Your task to perform on an android device: find photos in the google photos app Image 0: 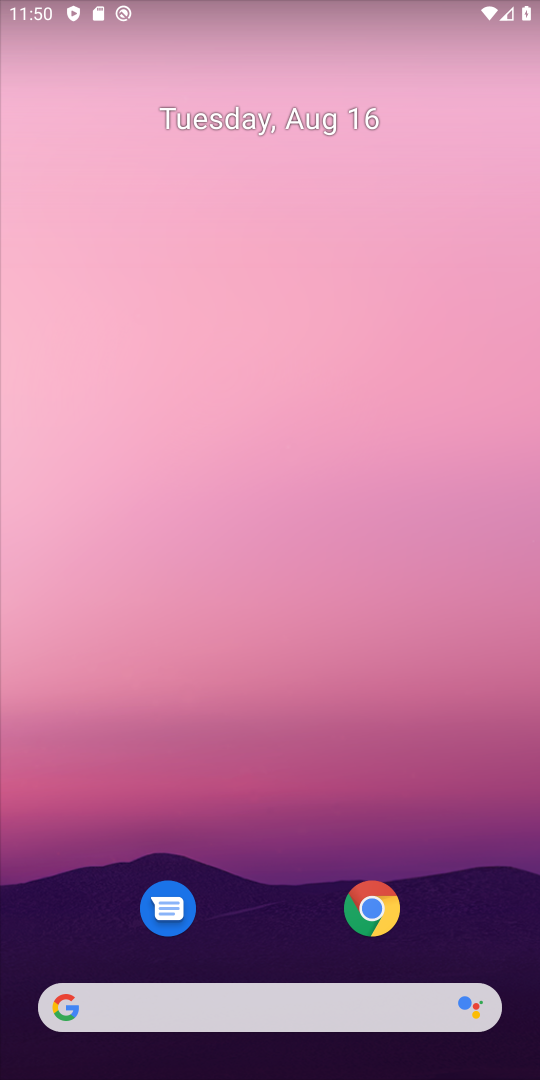
Step 0: drag from (286, 772) to (321, 345)
Your task to perform on an android device: find photos in the google photos app Image 1: 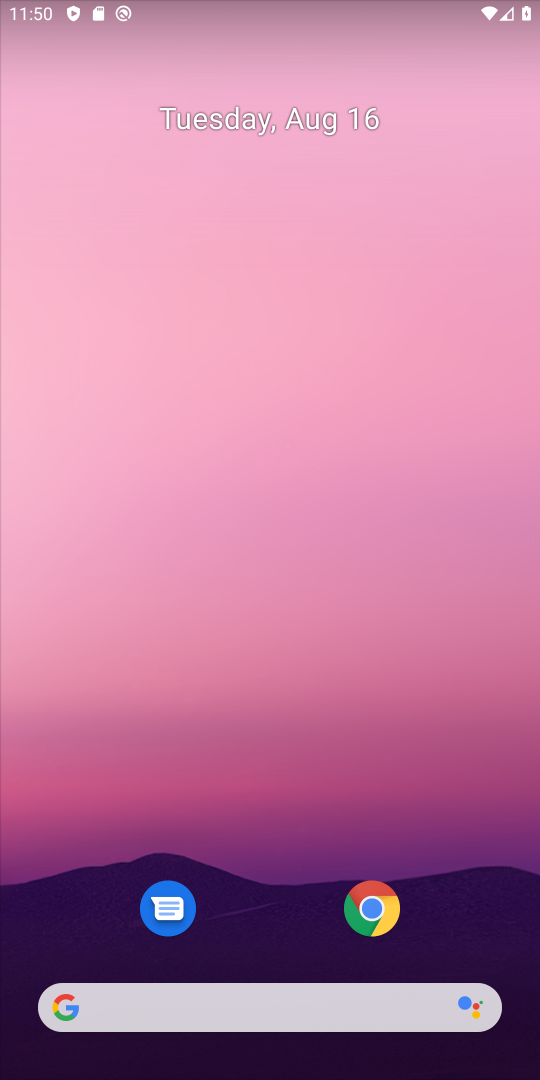
Step 1: click (275, 271)
Your task to perform on an android device: find photos in the google photos app Image 2: 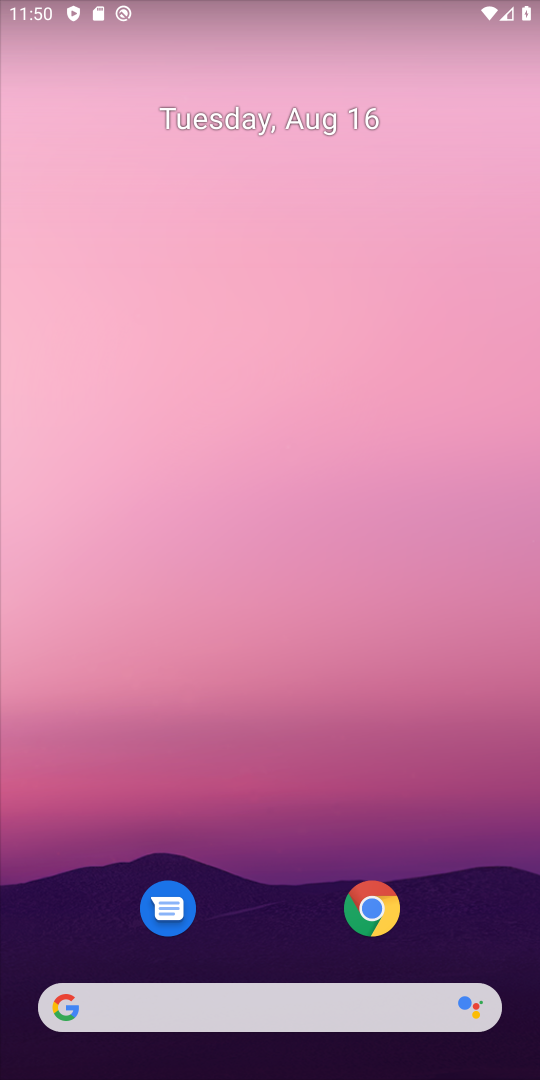
Step 2: drag from (256, 917) to (332, 244)
Your task to perform on an android device: find photos in the google photos app Image 3: 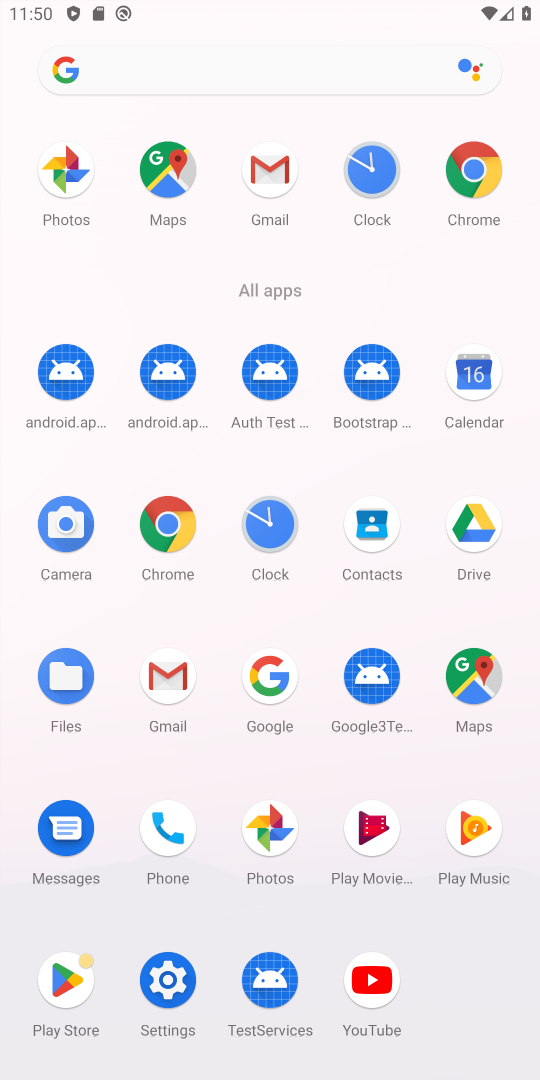
Step 3: click (71, 163)
Your task to perform on an android device: find photos in the google photos app Image 4: 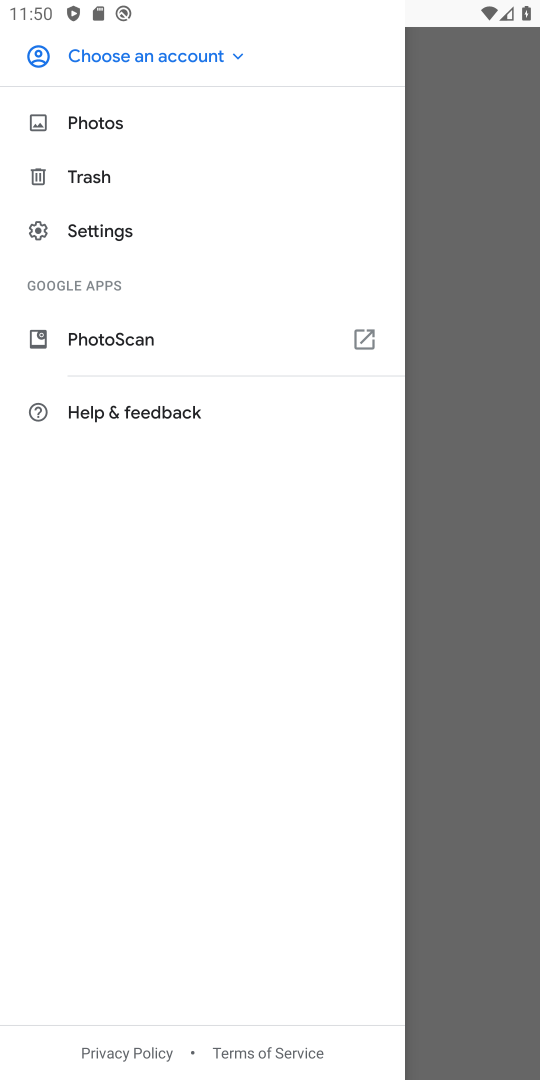
Step 4: click (145, 129)
Your task to perform on an android device: find photos in the google photos app Image 5: 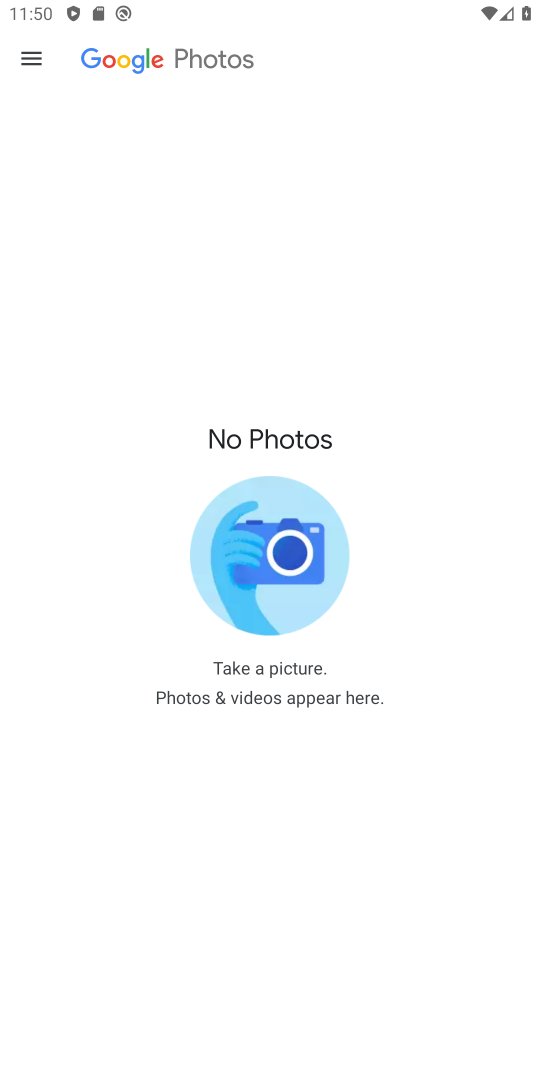
Step 5: click (35, 61)
Your task to perform on an android device: find photos in the google photos app Image 6: 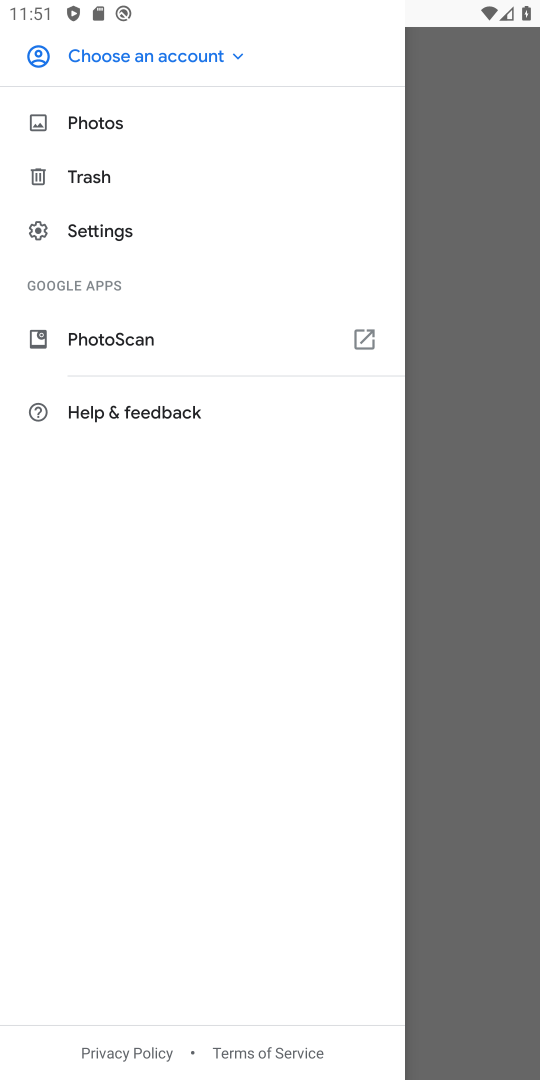
Step 6: click (472, 731)
Your task to perform on an android device: find photos in the google photos app Image 7: 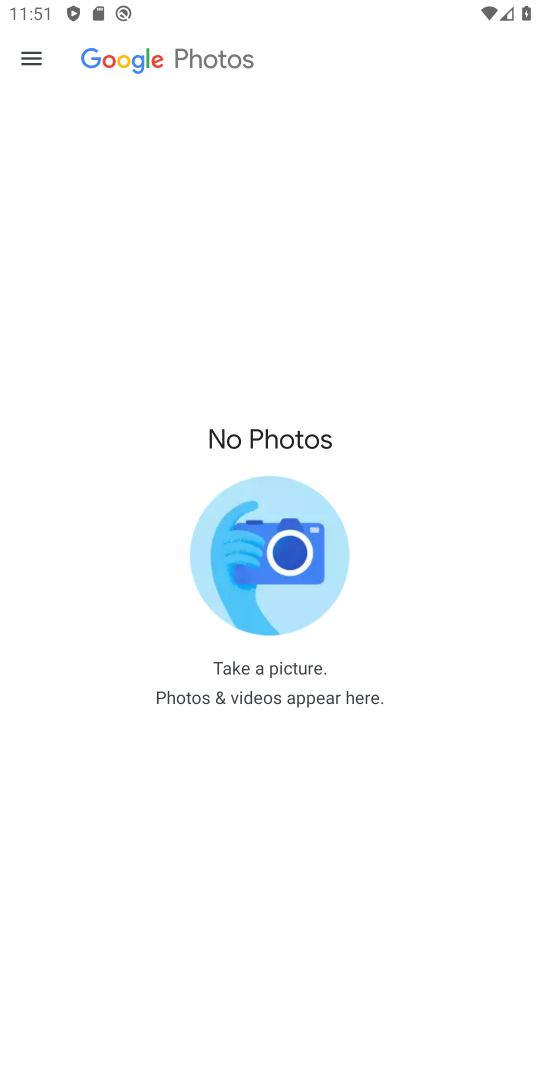
Step 7: click (190, 311)
Your task to perform on an android device: find photos in the google photos app Image 8: 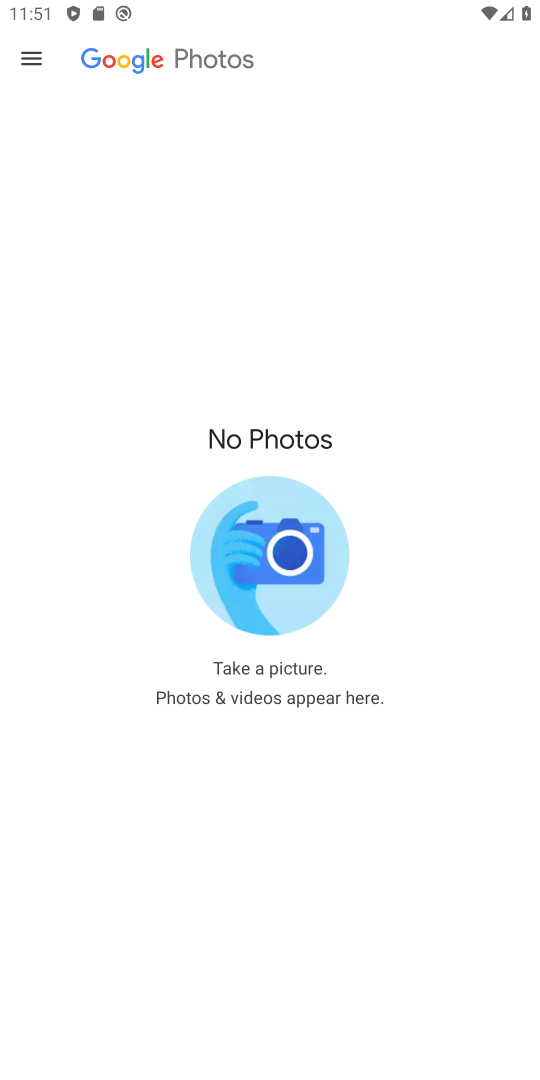
Step 8: click (40, 63)
Your task to perform on an android device: find photos in the google photos app Image 9: 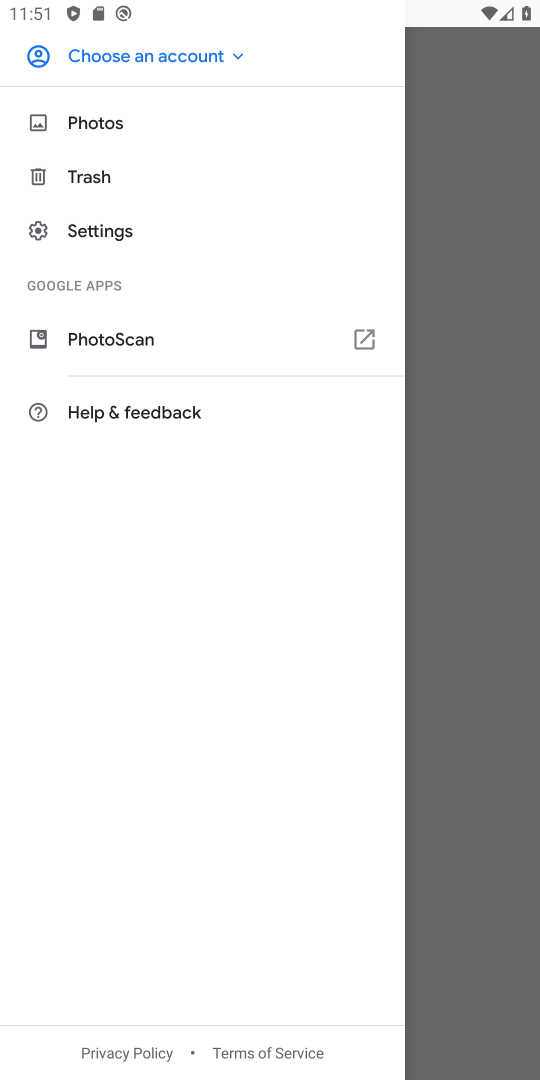
Step 9: click (431, 393)
Your task to perform on an android device: find photos in the google photos app Image 10: 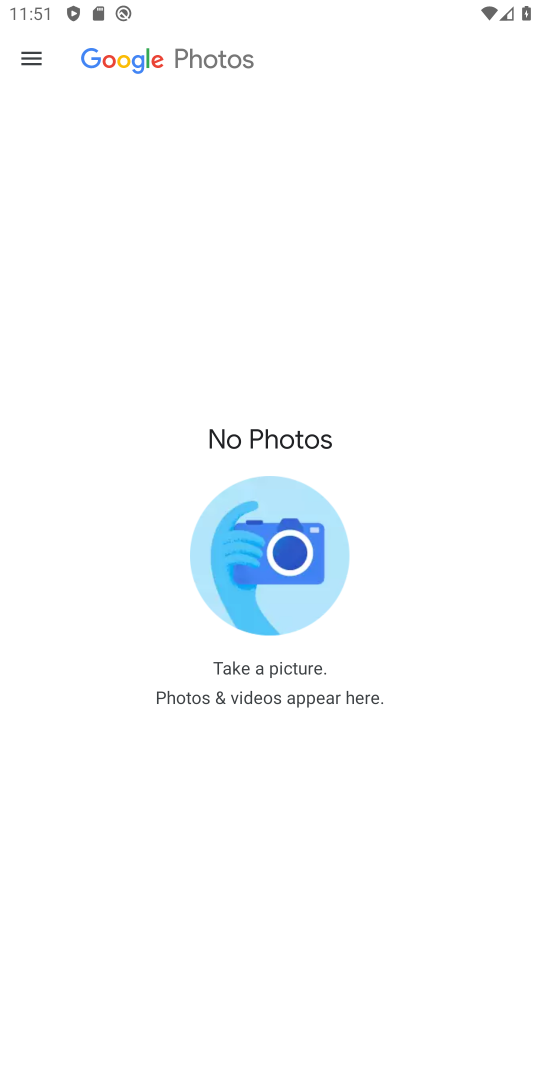
Step 10: click (353, 62)
Your task to perform on an android device: find photos in the google photos app Image 11: 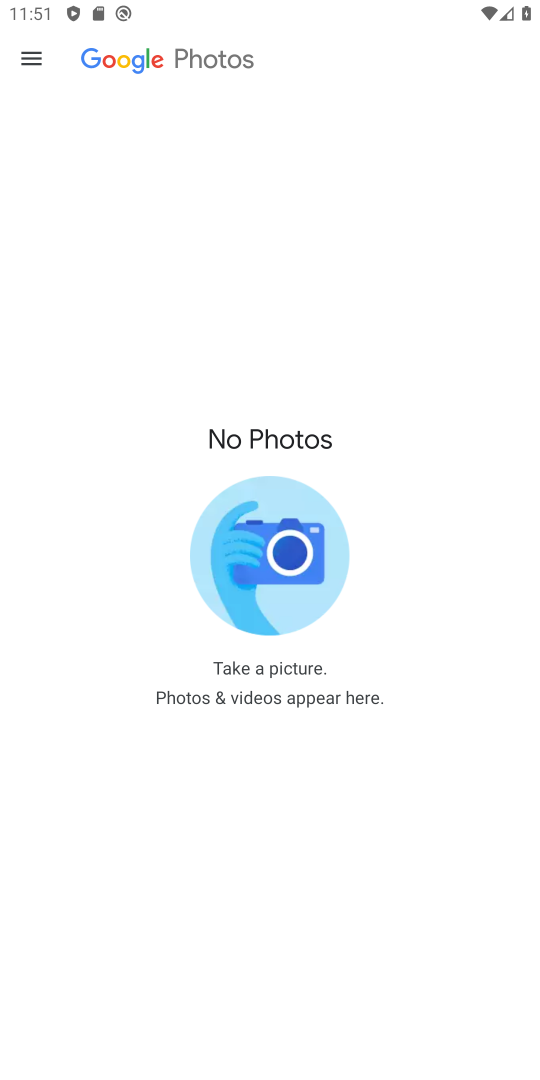
Step 11: click (241, 399)
Your task to perform on an android device: find photos in the google photos app Image 12: 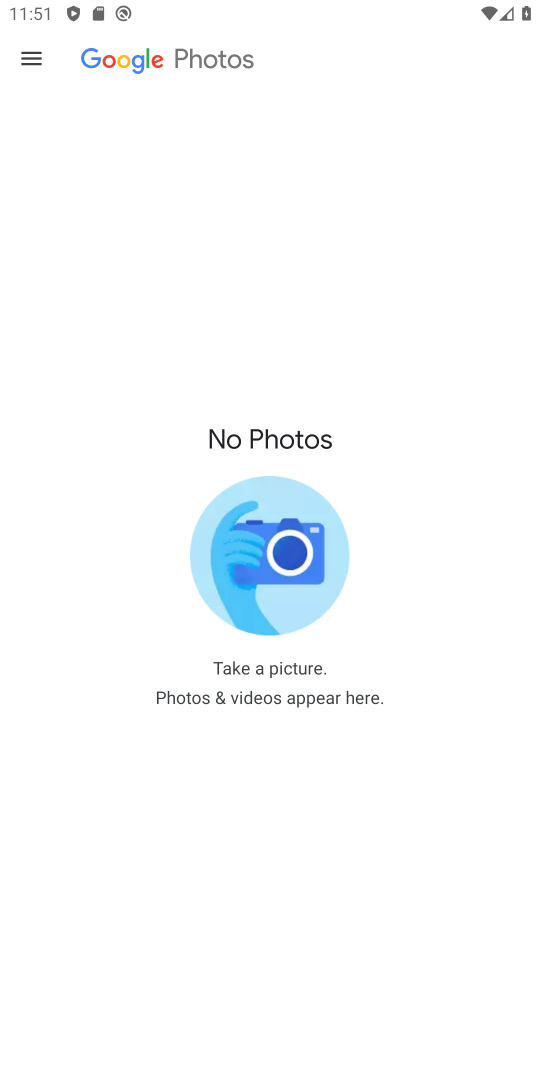
Step 12: click (217, 64)
Your task to perform on an android device: find photos in the google photos app Image 13: 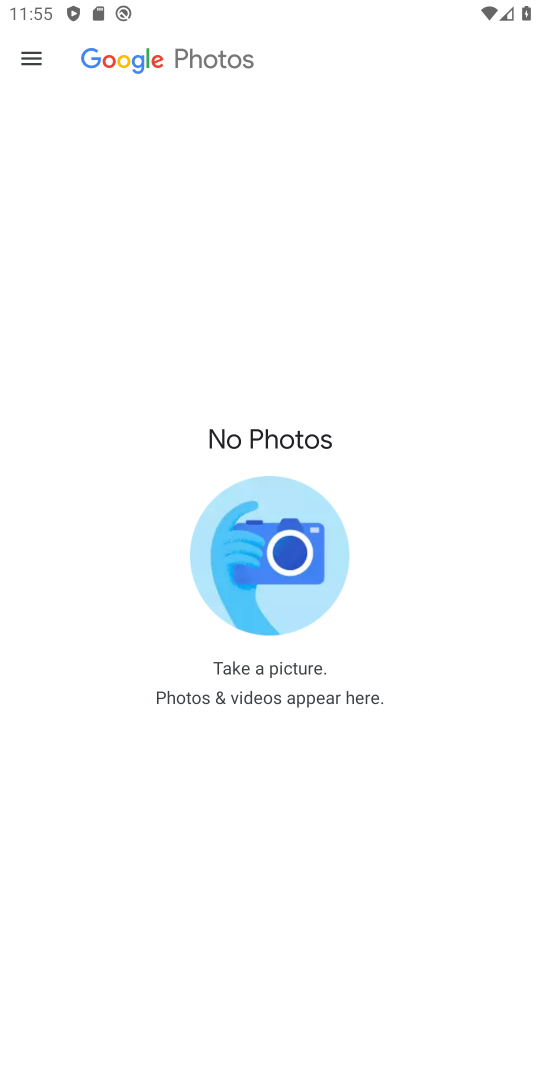
Step 13: task complete